Your task to perform on an android device: Go to Google maps Image 0: 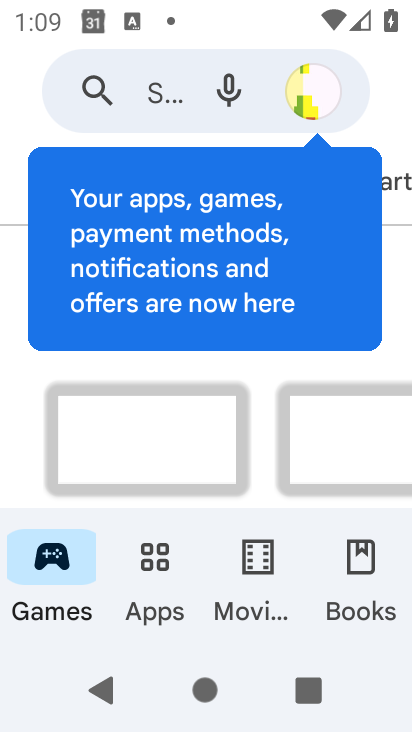
Step 0: click (58, 319)
Your task to perform on an android device: Go to Google maps Image 1: 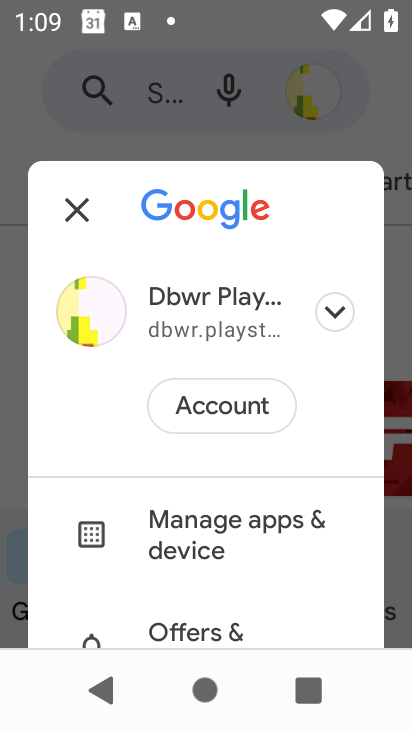
Step 1: press home button
Your task to perform on an android device: Go to Google maps Image 2: 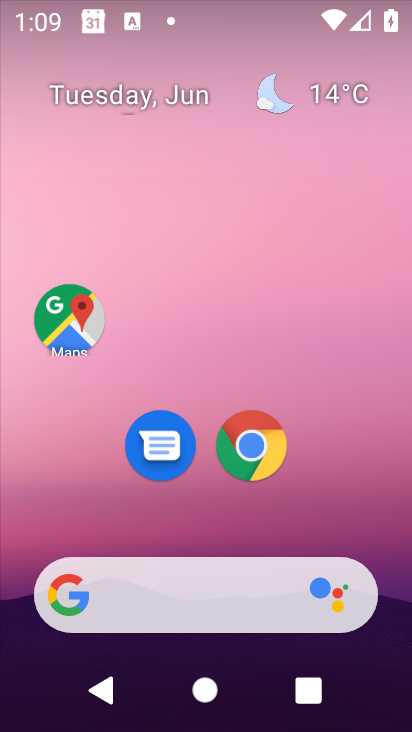
Step 2: click (85, 303)
Your task to perform on an android device: Go to Google maps Image 3: 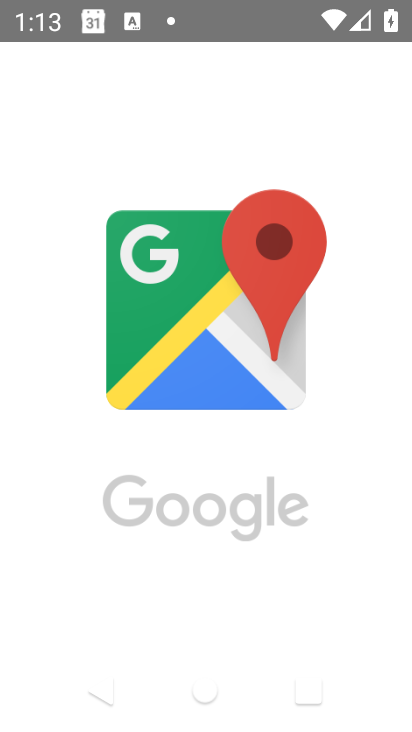
Step 3: task complete